Your task to perform on an android device: Check the settings for the Google Play Movies app Image 0: 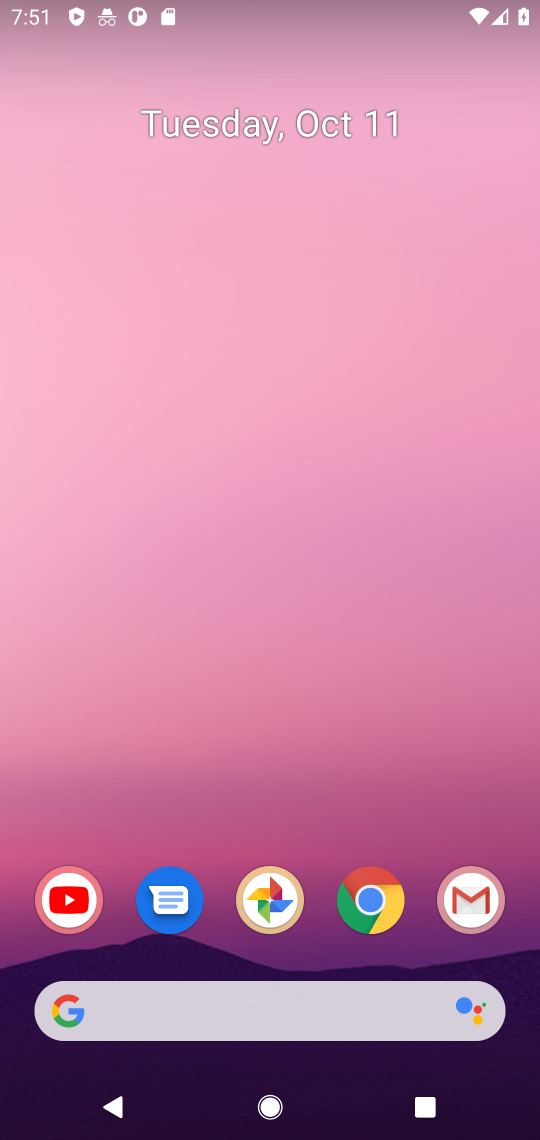
Step 0: drag from (362, 851) to (337, 275)
Your task to perform on an android device: Check the settings for the Google Play Movies app Image 1: 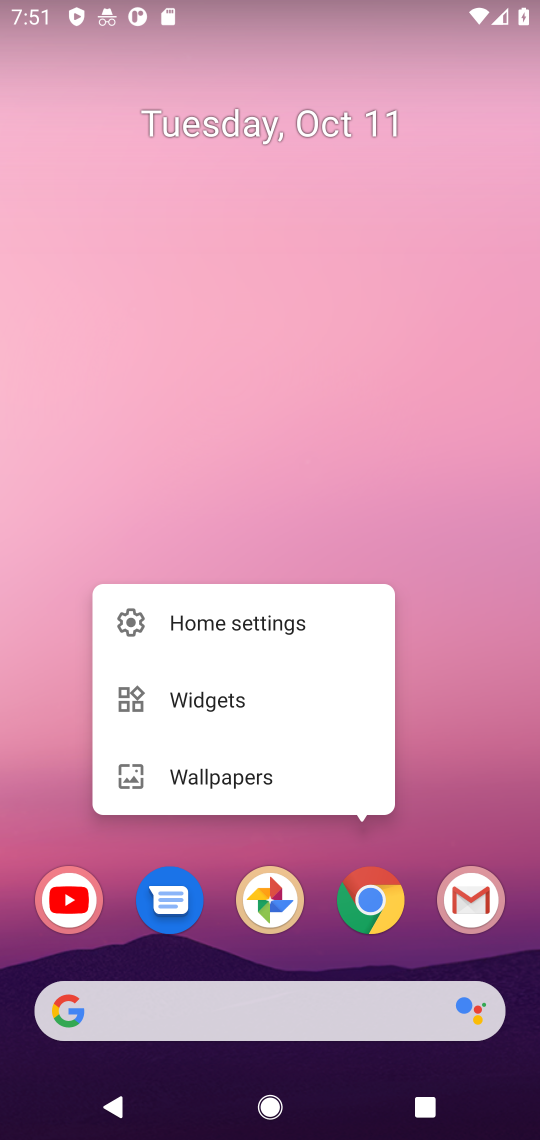
Step 1: click (453, 647)
Your task to perform on an android device: Check the settings for the Google Play Movies app Image 2: 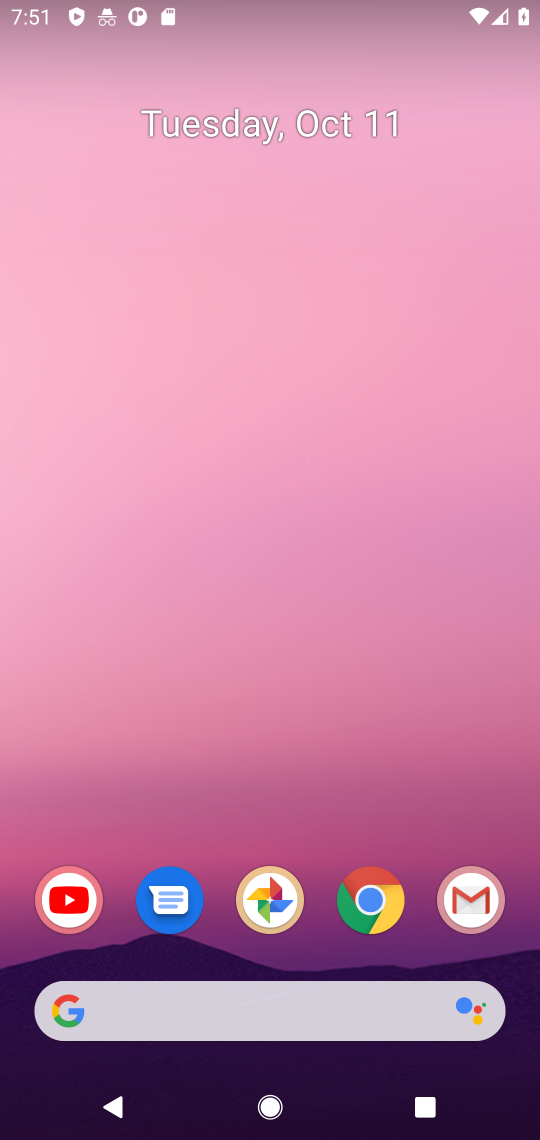
Step 2: drag from (409, 791) to (363, 152)
Your task to perform on an android device: Check the settings for the Google Play Movies app Image 3: 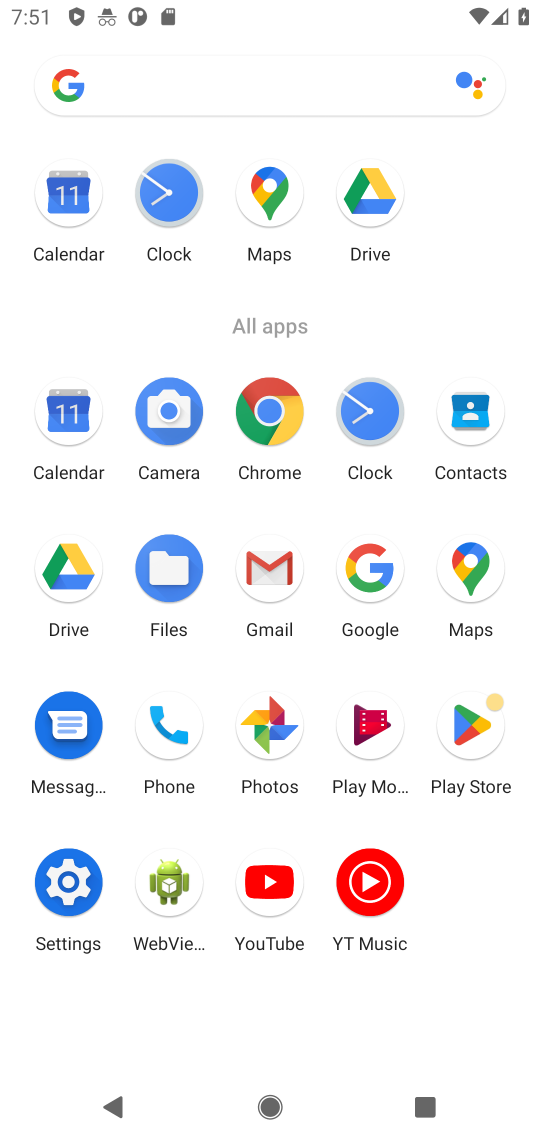
Step 3: click (366, 728)
Your task to perform on an android device: Check the settings for the Google Play Movies app Image 4: 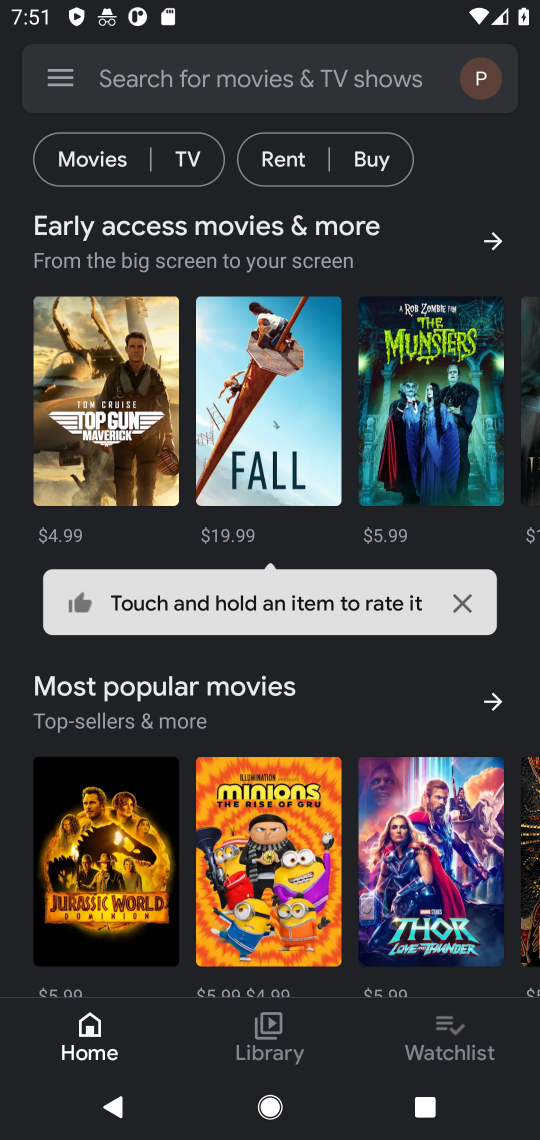
Step 4: click (74, 85)
Your task to perform on an android device: Check the settings for the Google Play Movies app Image 5: 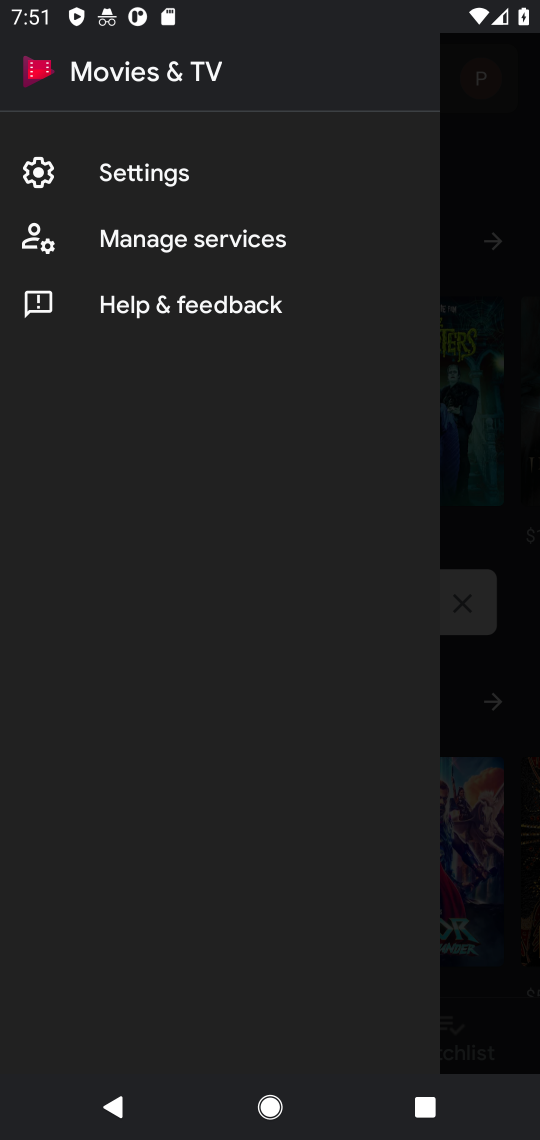
Step 5: click (151, 162)
Your task to perform on an android device: Check the settings for the Google Play Movies app Image 6: 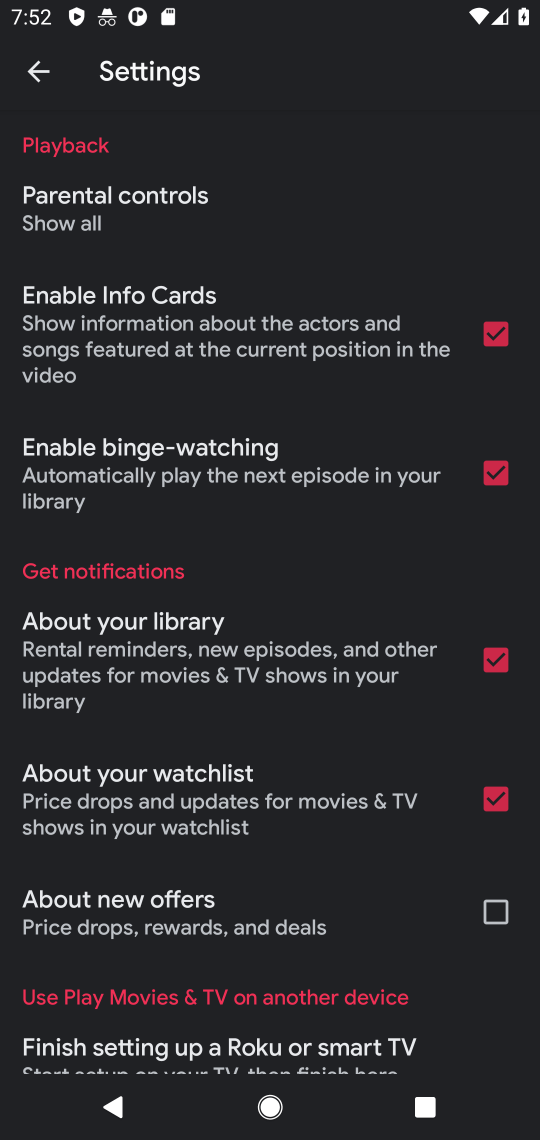
Step 6: task complete